Your task to perform on an android device: Open Google Maps Image 0: 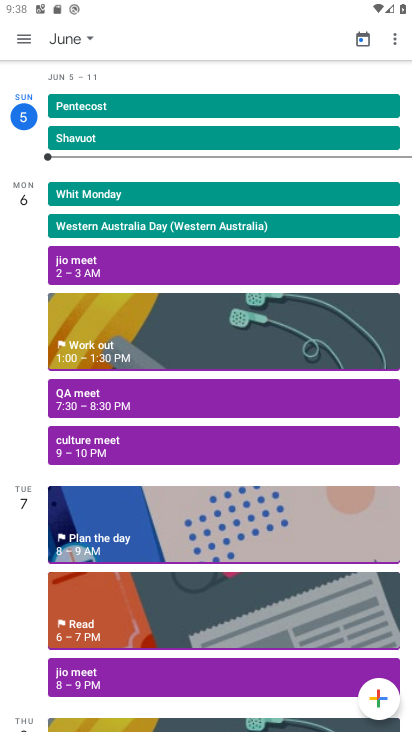
Step 0: press home button
Your task to perform on an android device: Open Google Maps Image 1: 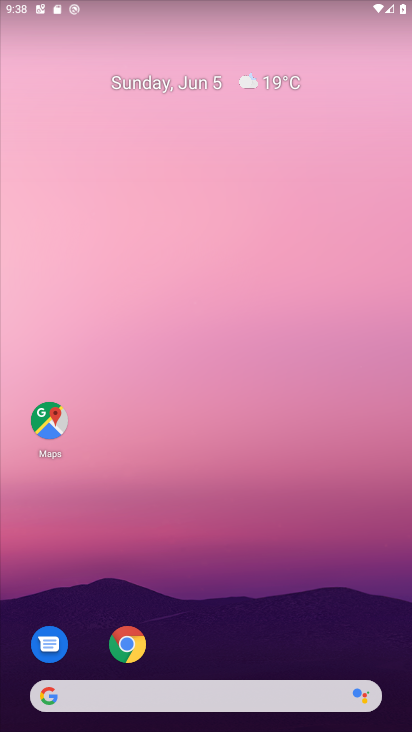
Step 1: click (45, 407)
Your task to perform on an android device: Open Google Maps Image 2: 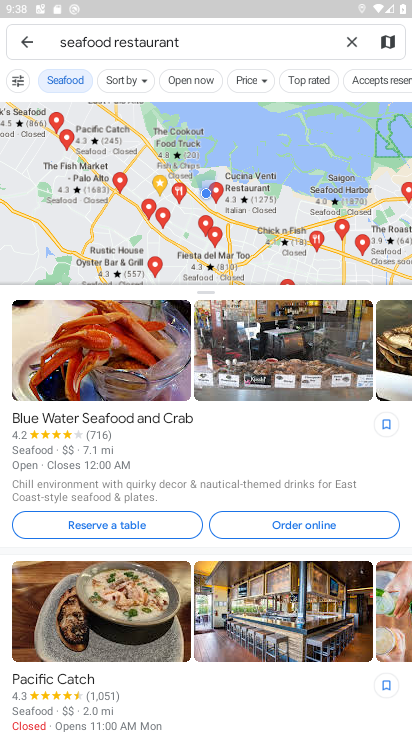
Step 2: task complete